Your task to perform on an android device: Open internet settings Image 0: 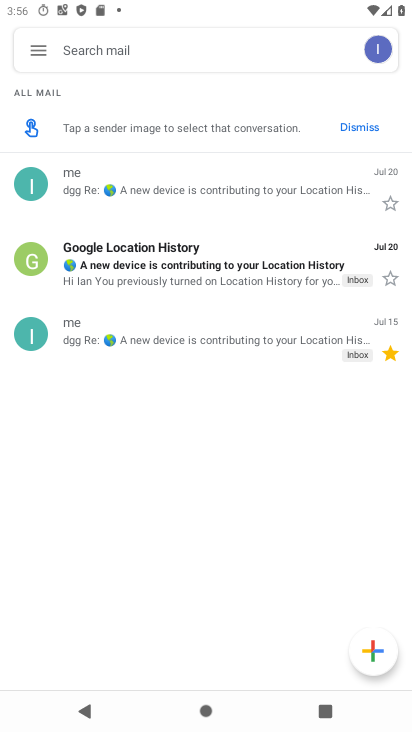
Step 0: press home button
Your task to perform on an android device: Open internet settings Image 1: 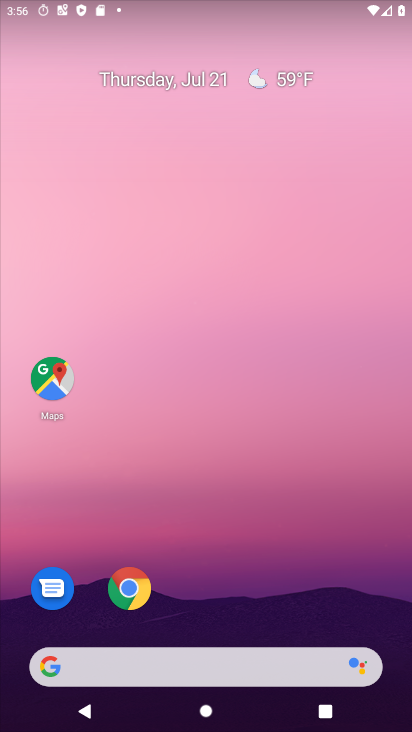
Step 1: drag from (225, 621) to (209, 134)
Your task to perform on an android device: Open internet settings Image 2: 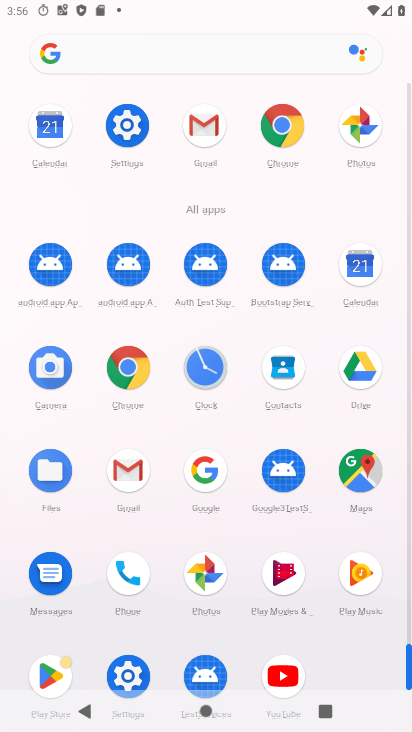
Step 2: click (121, 676)
Your task to perform on an android device: Open internet settings Image 3: 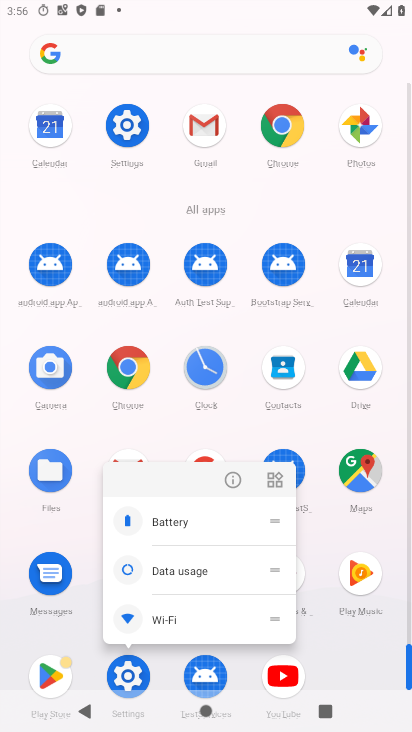
Step 3: click (132, 663)
Your task to perform on an android device: Open internet settings Image 4: 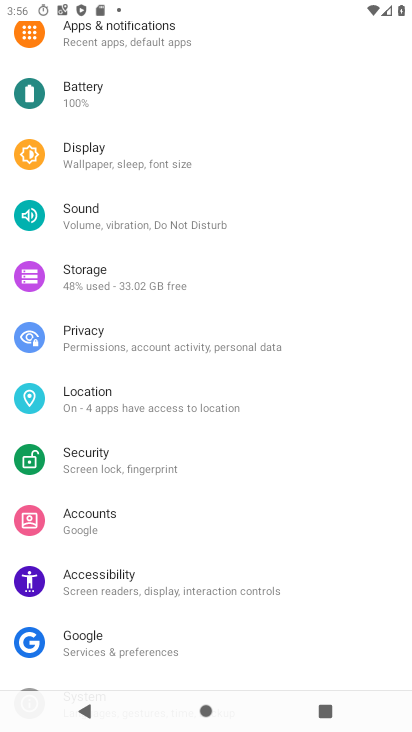
Step 4: drag from (134, 93) to (126, 476)
Your task to perform on an android device: Open internet settings Image 5: 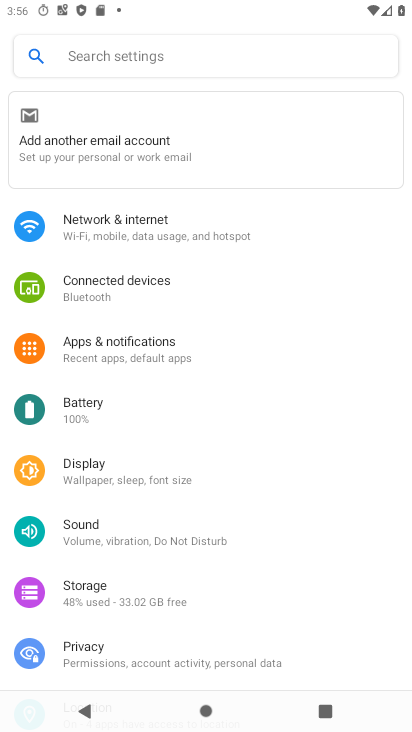
Step 5: click (115, 233)
Your task to perform on an android device: Open internet settings Image 6: 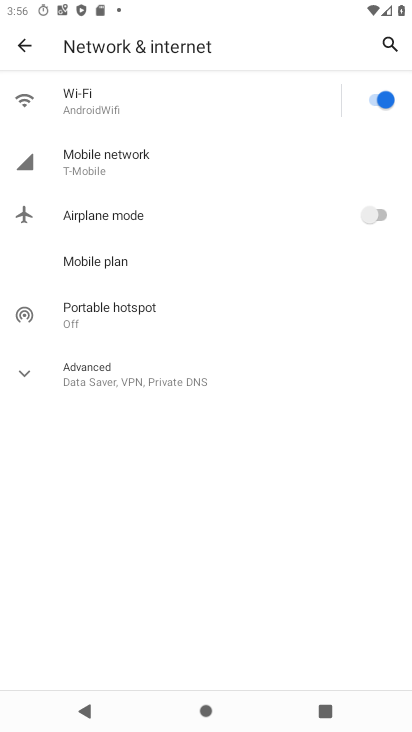
Step 6: task complete